Your task to perform on an android device: turn off javascript in the chrome app Image 0: 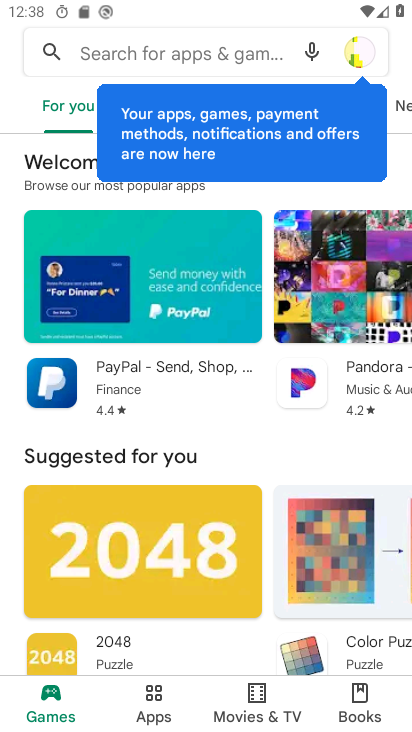
Step 0: press home button
Your task to perform on an android device: turn off javascript in the chrome app Image 1: 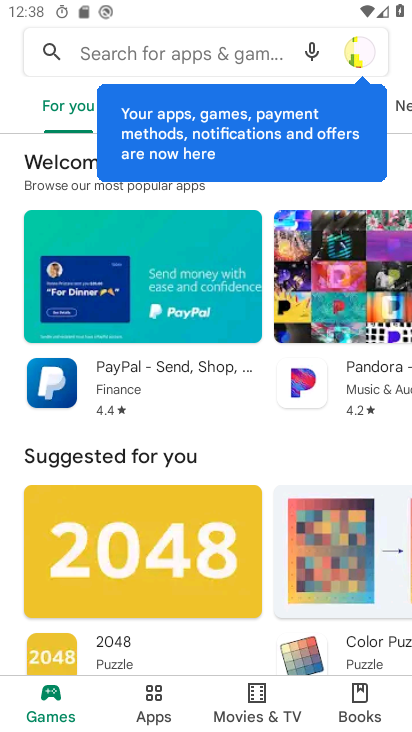
Step 1: press home button
Your task to perform on an android device: turn off javascript in the chrome app Image 2: 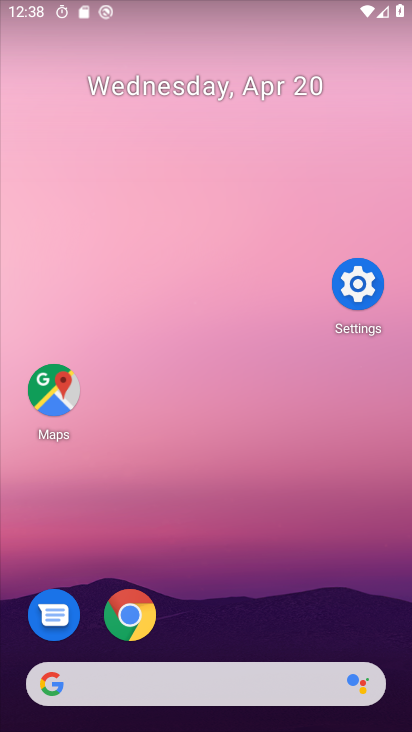
Step 2: drag from (208, 613) to (333, 79)
Your task to perform on an android device: turn off javascript in the chrome app Image 3: 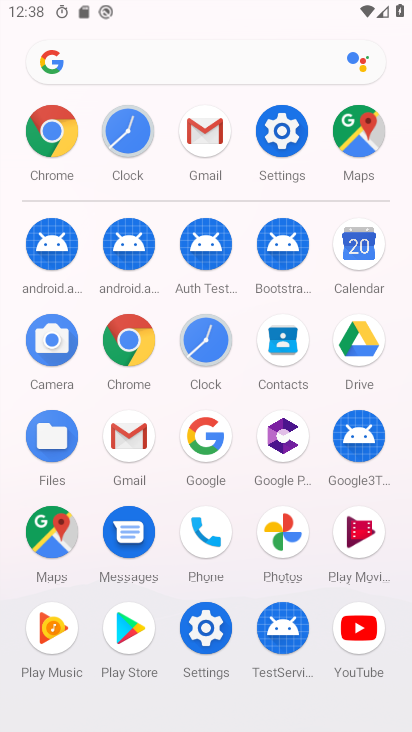
Step 3: click (128, 339)
Your task to perform on an android device: turn off javascript in the chrome app Image 4: 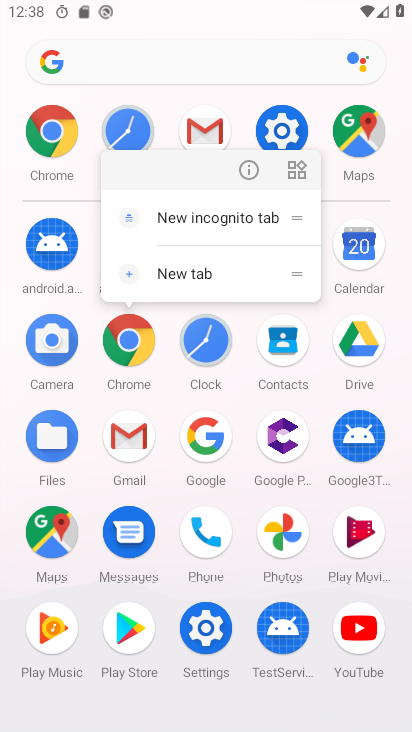
Step 4: click (251, 176)
Your task to perform on an android device: turn off javascript in the chrome app Image 5: 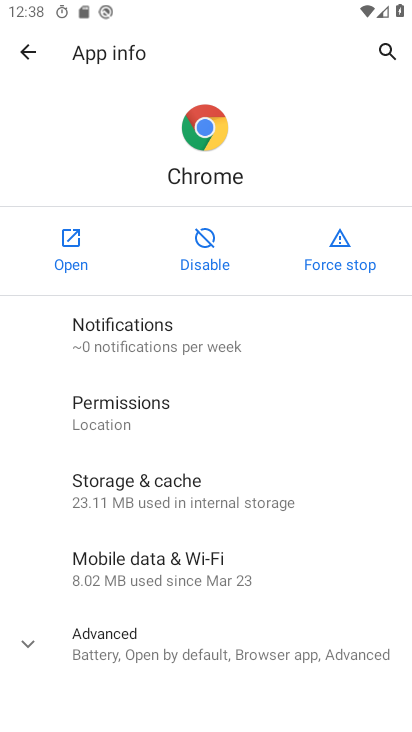
Step 5: click (59, 240)
Your task to perform on an android device: turn off javascript in the chrome app Image 6: 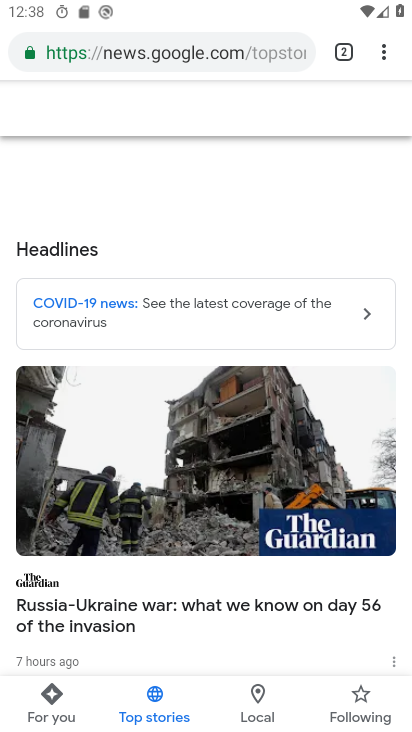
Step 6: drag from (391, 44) to (242, 641)
Your task to perform on an android device: turn off javascript in the chrome app Image 7: 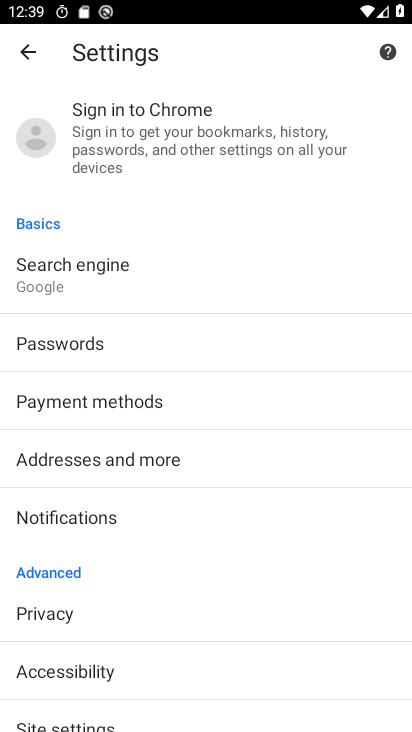
Step 7: drag from (163, 593) to (256, 187)
Your task to perform on an android device: turn off javascript in the chrome app Image 8: 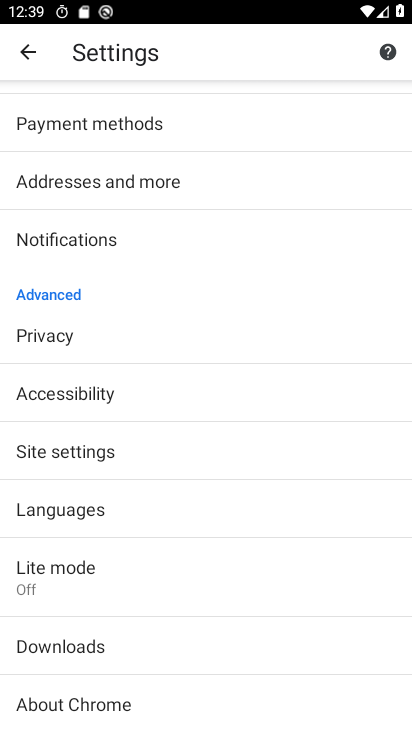
Step 8: click (100, 453)
Your task to perform on an android device: turn off javascript in the chrome app Image 9: 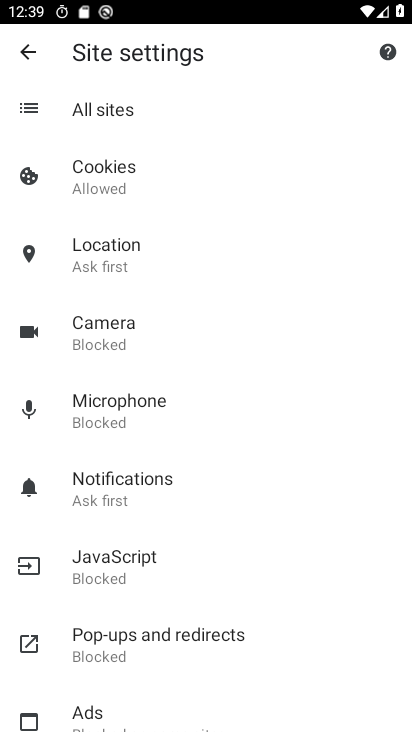
Step 9: click (175, 550)
Your task to perform on an android device: turn off javascript in the chrome app Image 10: 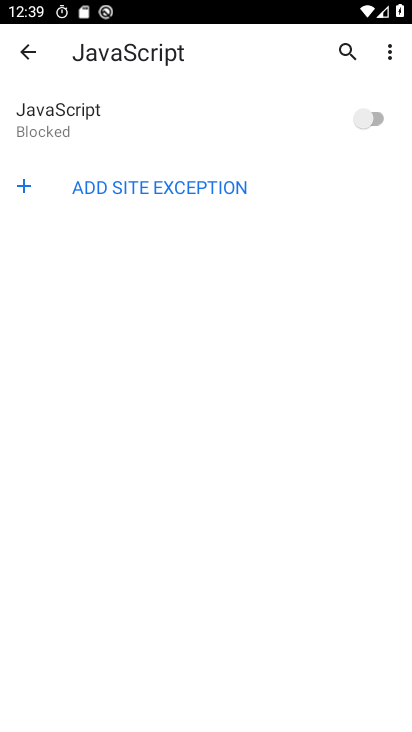
Step 10: task complete